Your task to perform on an android device: turn on bluetooth scan Image 0: 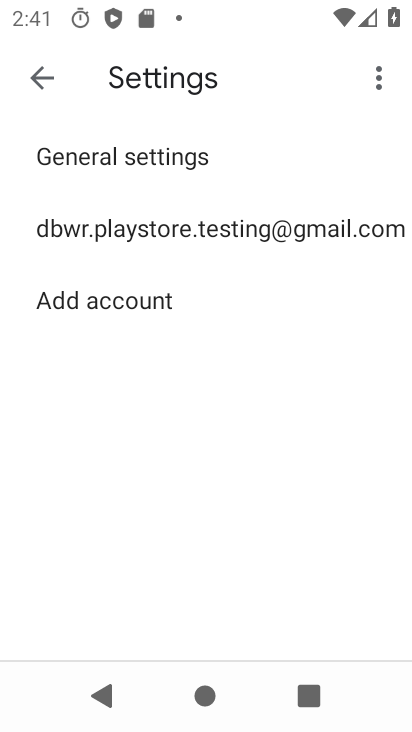
Step 0: press home button
Your task to perform on an android device: turn on bluetooth scan Image 1: 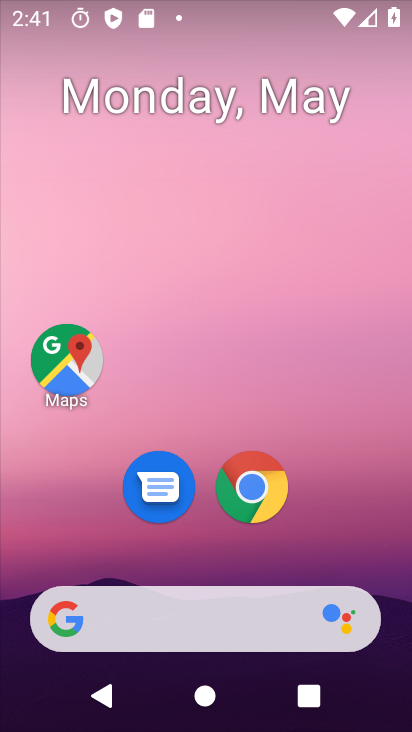
Step 1: drag from (211, 569) to (281, 126)
Your task to perform on an android device: turn on bluetooth scan Image 2: 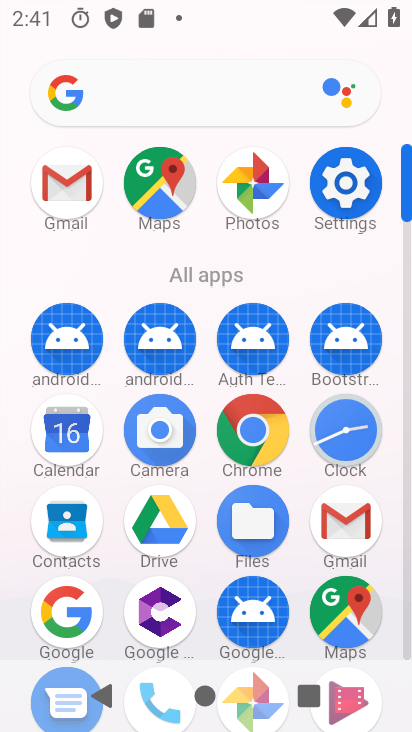
Step 2: click (335, 172)
Your task to perform on an android device: turn on bluetooth scan Image 3: 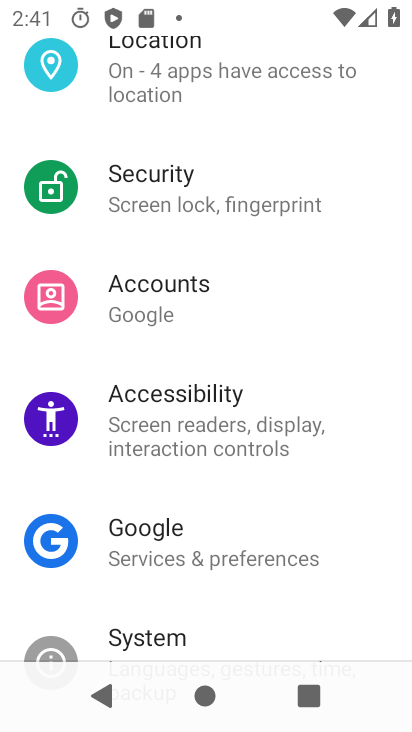
Step 3: drag from (232, 525) to (292, 201)
Your task to perform on an android device: turn on bluetooth scan Image 4: 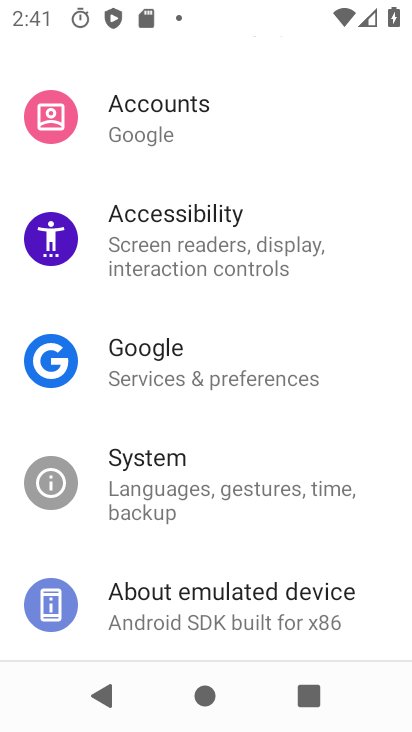
Step 4: drag from (214, 232) to (228, 590)
Your task to perform on an android device: turn on bluetooth scan Image 5: 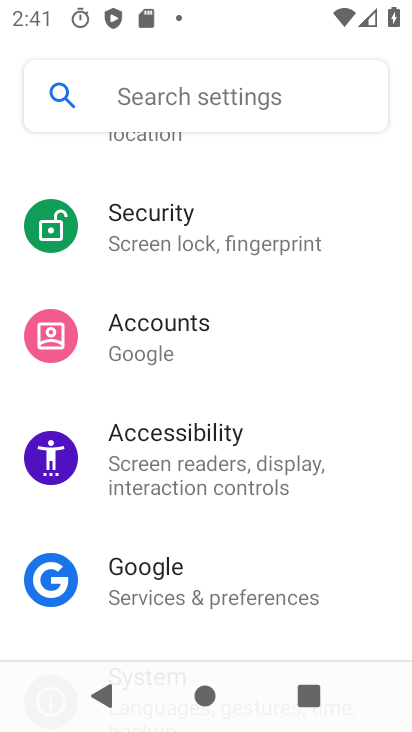
Step 5: drag from (253, 632) to (227, 723)
Your task to perform on an android device: turn on bluetooth scan Image 6: 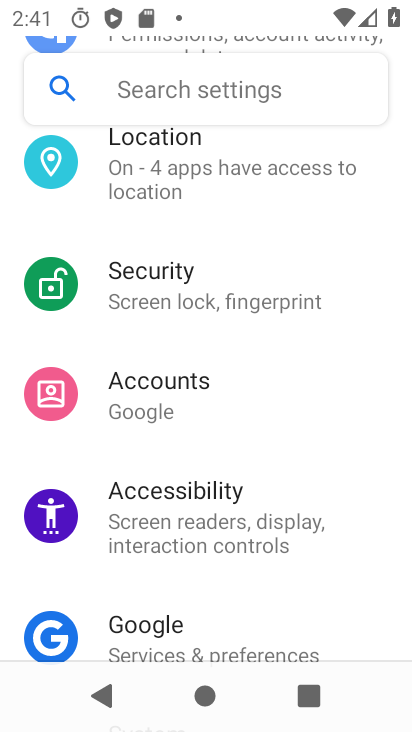
Step 6: drag from (252, 353) to (229, 731)
Your task to perform on an android device: turn on bluetooth scan Image 7: 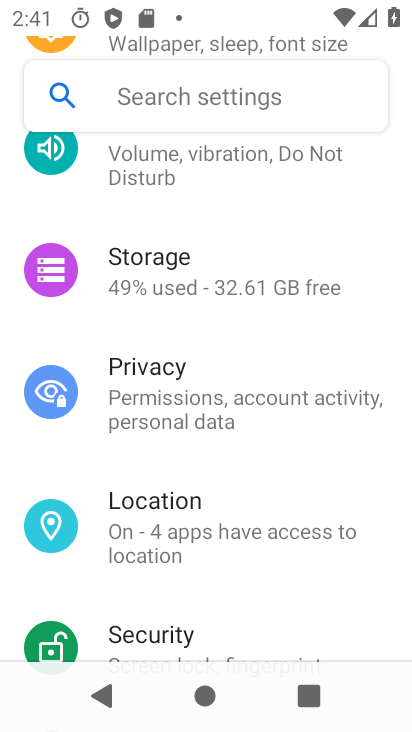
Step 7: drag from (258, 653) to (166, 727)
Your task to perform on an android device: turn on bluetooth scan Image 8: 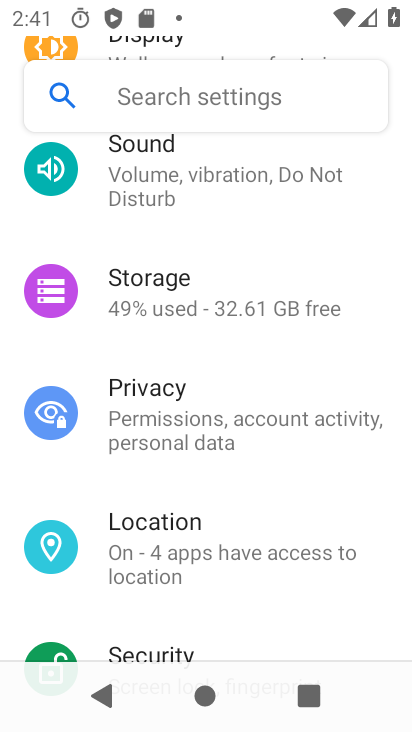
Step 8: drag from (225, 268) to (213, 659)
Your task to perform on an android device: turn on bluetooth scan Image 9: 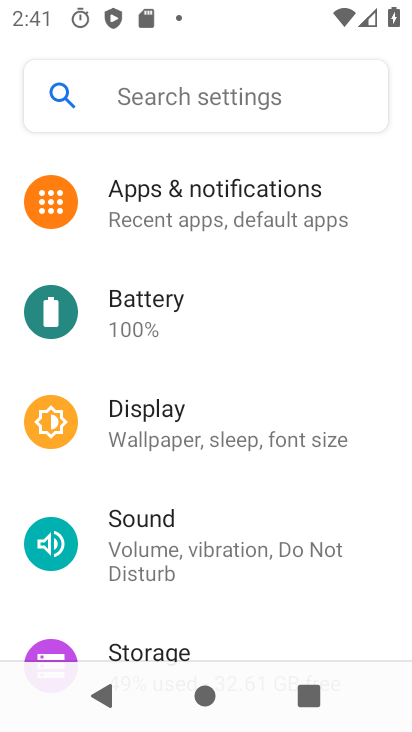
Step 9: drag from (195, 345) to (276, 7)
Your task to perform on an android device: turn on bluetooth scan Image 10: 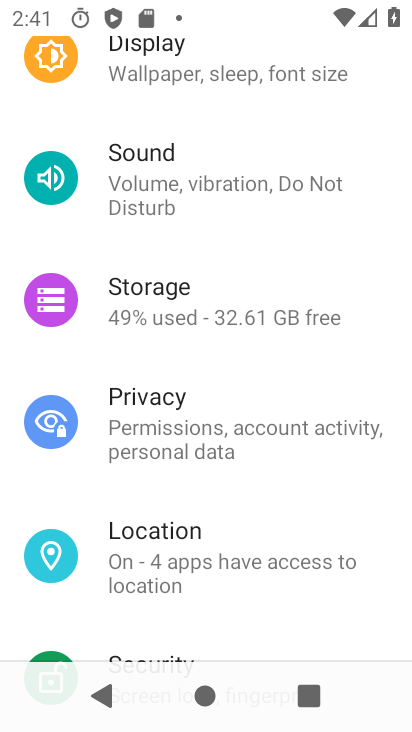
Step 10: click (170, 560)
Your task to perform on an android device: turn on bluetooth scan Image 11: 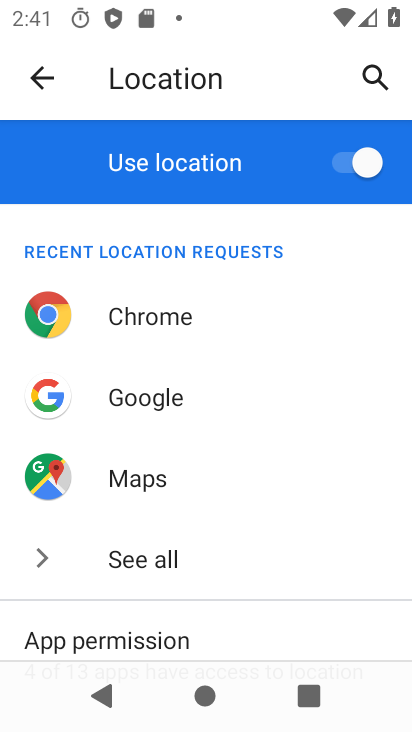
Step 11: drag from (170, 578) to (251, 204)
Your task to perform on an android device: turn on bluetooth scan Image 12: 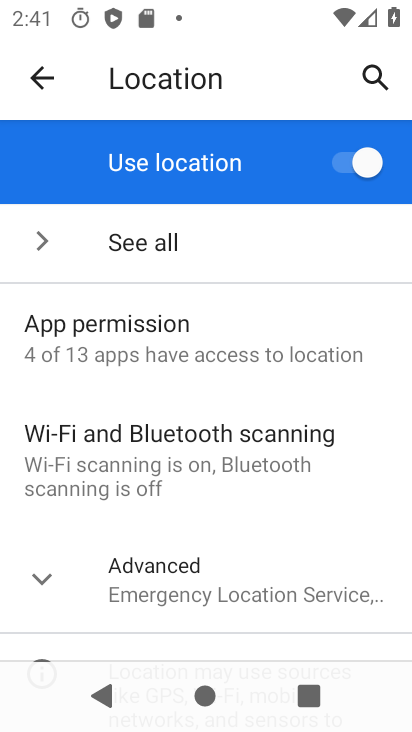
Step 12: click (158, 439)
Your task to perform on an android device: turn on bluetooth scan Image 13: 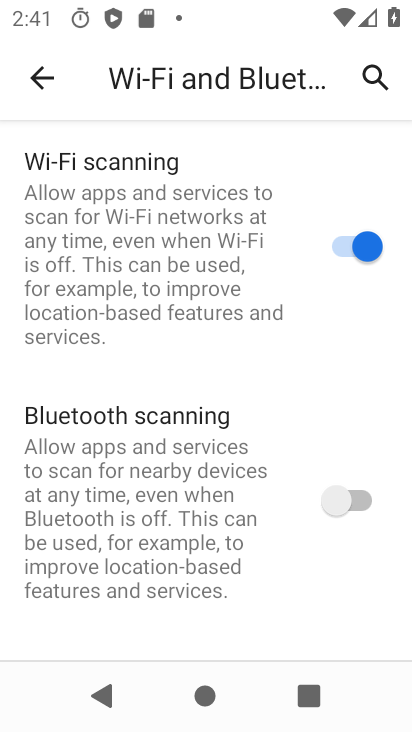
Step 13: click (360, 499)
Your task to perform on an android device: turn on bluetooth scan Image 14: 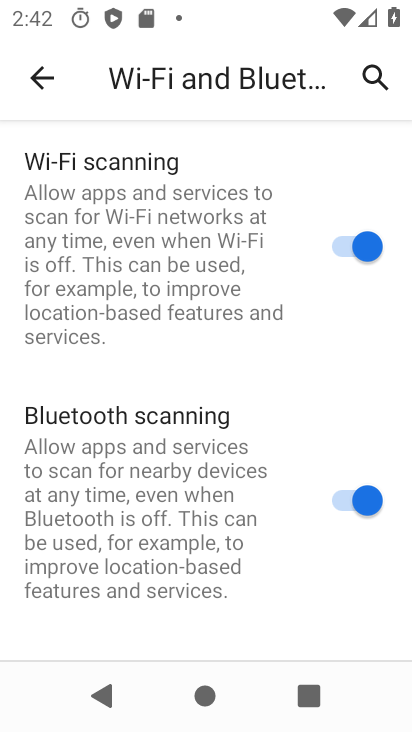
Step 14: task complete